Your task to perform on an android device: Go to Yahoo.com Image 0: 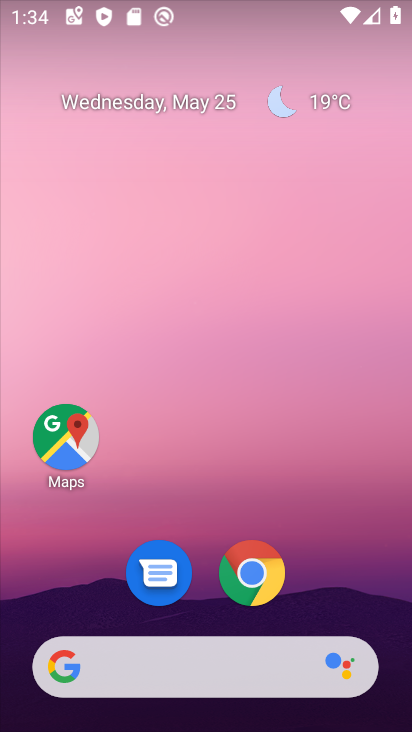
Step 0: click (252, 581)
Your task to perform on an android device: Go to Yahoo.com Image 1: 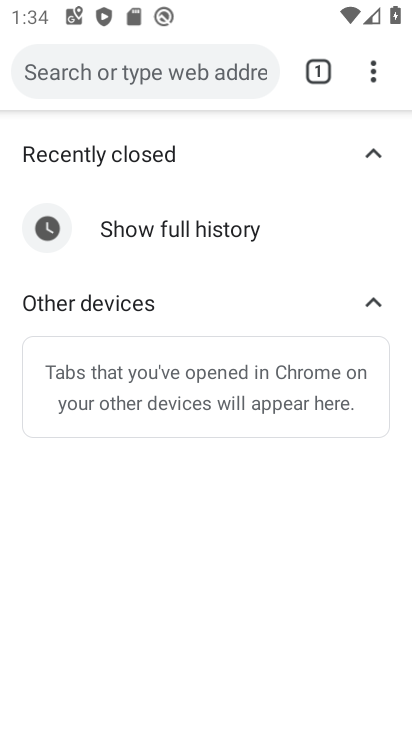
Step 1: click (133, 74)
Your task to perform on an android device: Go to Yahoo.com Image 2: 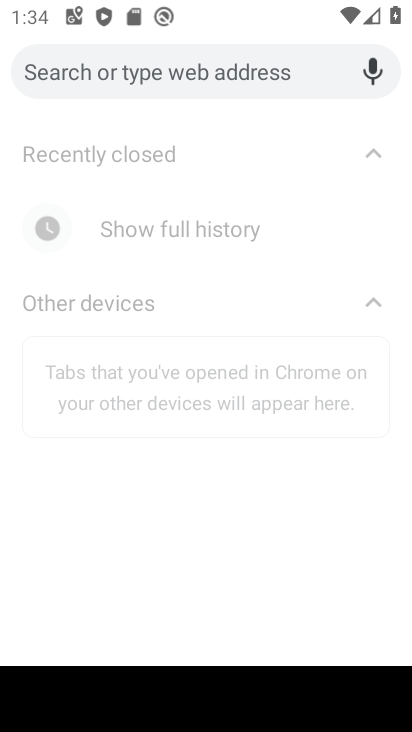
Step 2: type "yahoo.com"
Your task to perform on an android device: Go to Yahoo.com Image 3: 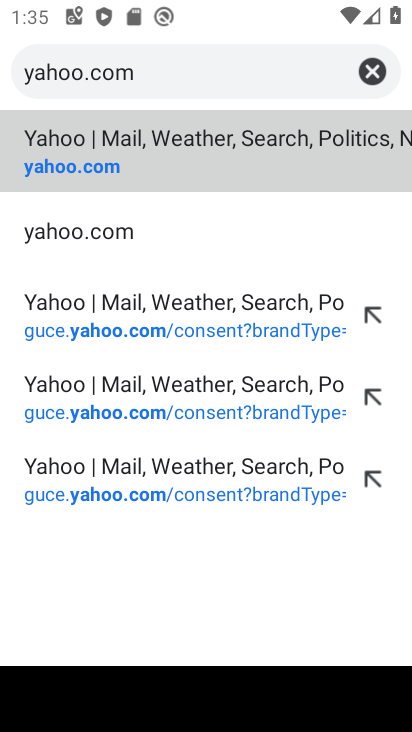
Step 3: click (121, 164)
Your task to perform on an android device: Go to Yahoo.com Image 4: 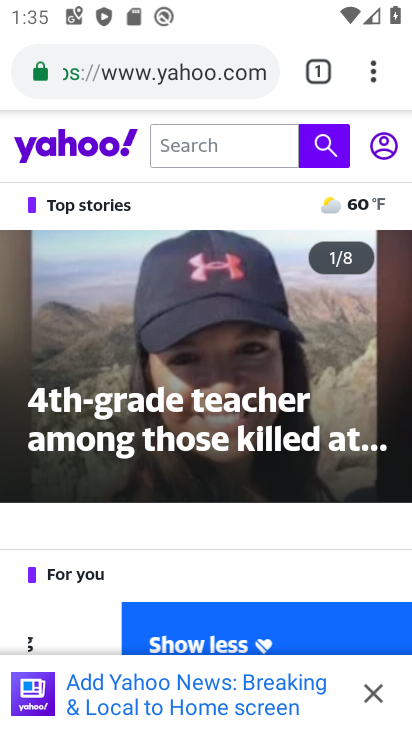
Step 4: task complete